Your task to perform on an android device: What's on my calendar today? Image 0: 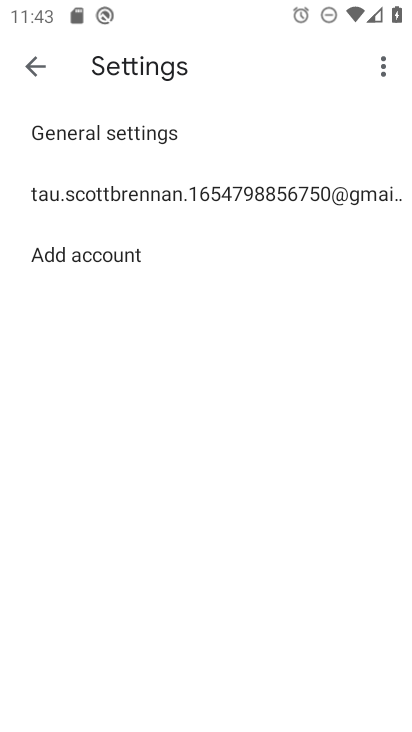
Step 0: press home button
Your task to perform on an android device: What's on my calendar today? Image 1: 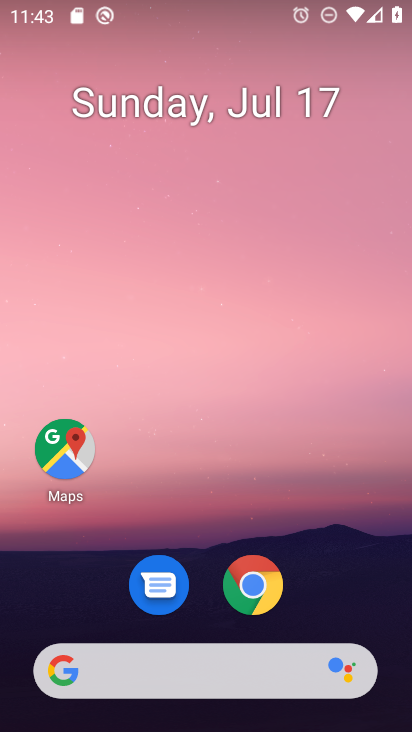
Step 1: drag from (339, 598) to (307, 9)
Your task to perform on an android device: What's on my calendar today? Image 2: 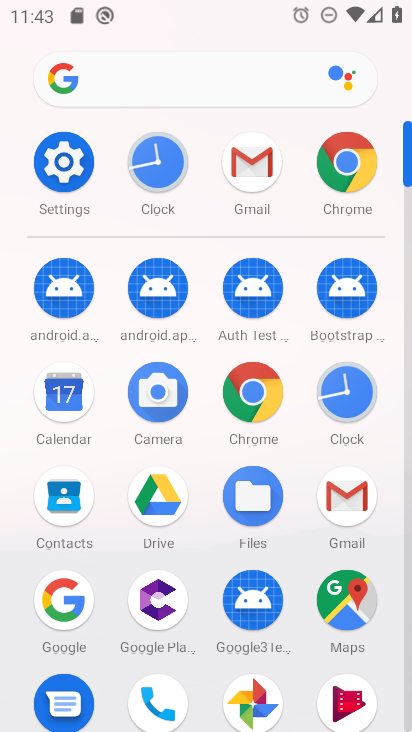
Step 2: click (349, 381)
Your task to perform on an android device: What's on my calendar today? Image 3: 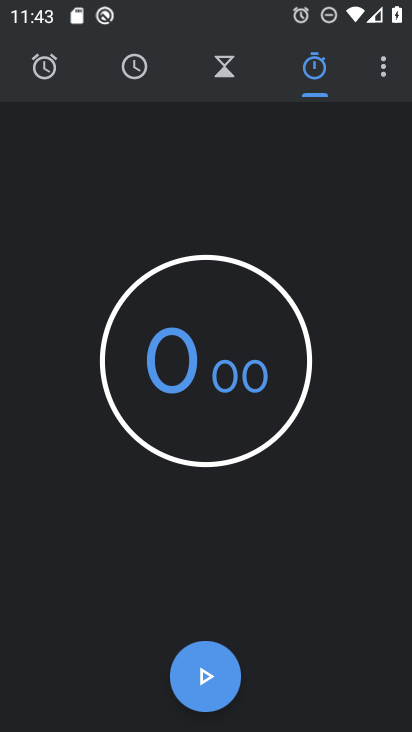
Step 3: press home button
Your task to perform on an android device: What's on my calendar today? Image 4: 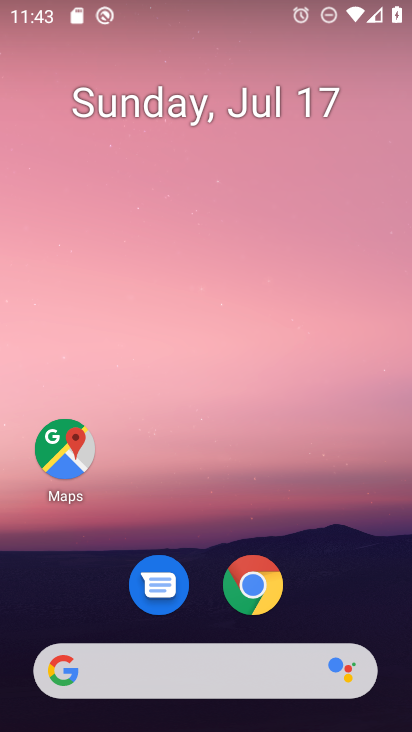
Step 4: drag from (359, 603) to (272, 38)
Your task to perform on an android device: What's on my calendar today? Image 5: 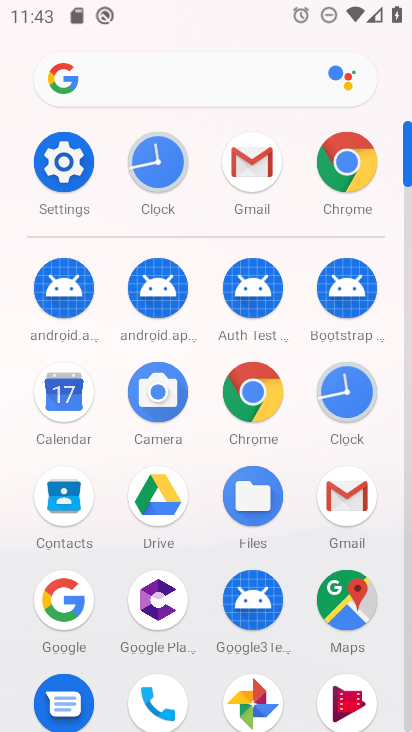
Step 5: click (65, 387)
Your task to perform on an android device: What's on my calendar today? Image 6: 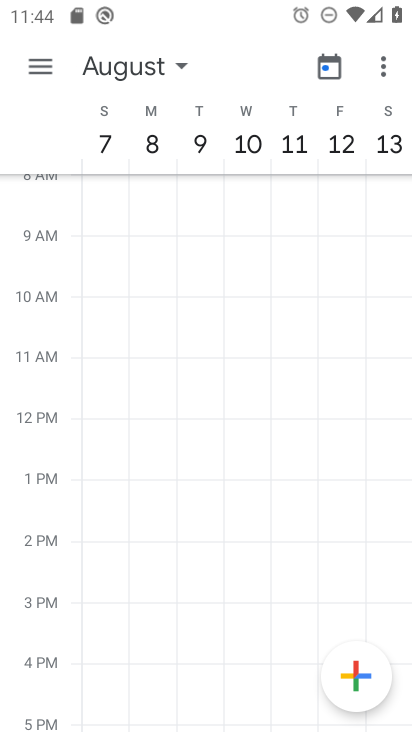
Step 6: drag from (229, 292) to (379, 303)
Your task to perform on an android device: What's on my calendar today? Image 7: 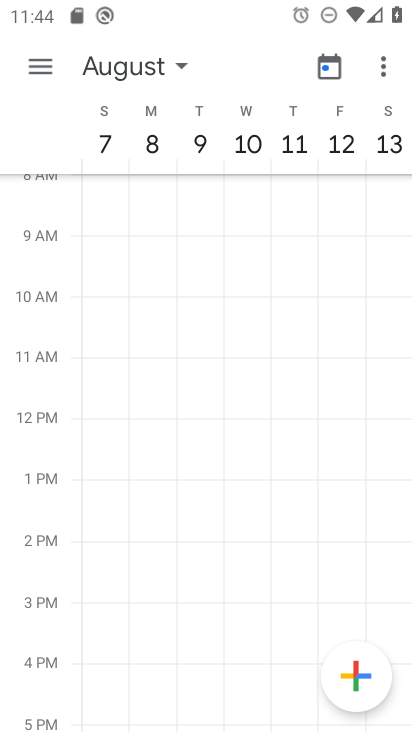
Step 7: drag from (98, 372) to (409, 440)
Your task to perform on an android device: What's on my calendar today? Image 8: 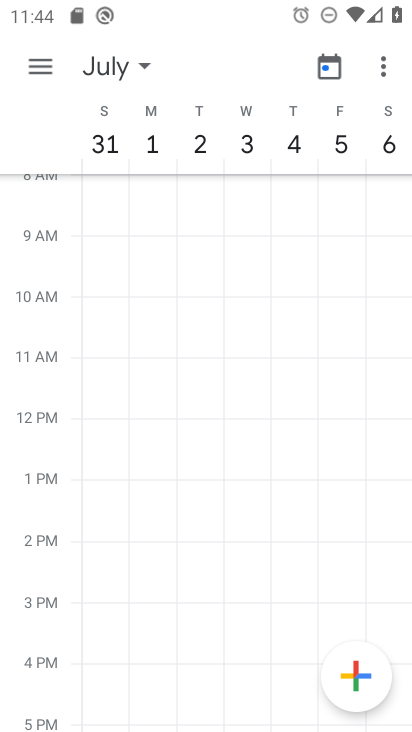
Step 8: drag from (92, 321) to (409, 460)
Your task to perform on an android device: What's on my calendar today? Image 9: 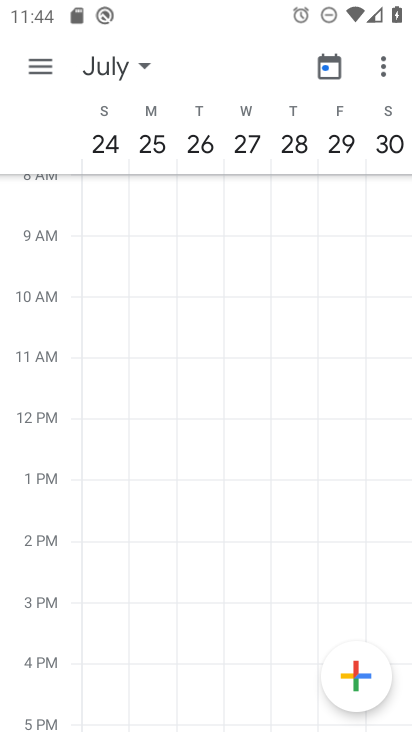
Step 9: drag from (91, 318) to (408, 394)
Your task to perform on an android device: What's on my calendar today? Image 10: 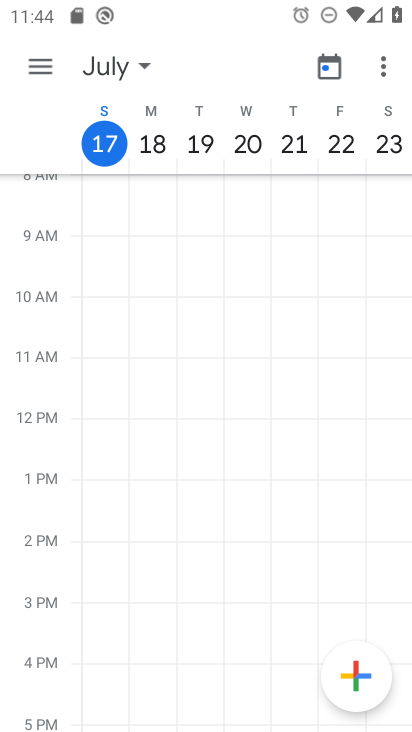
Step 10: click (108, 137)
Your task to perform on an android device: What's on my calendar today? Image 11: 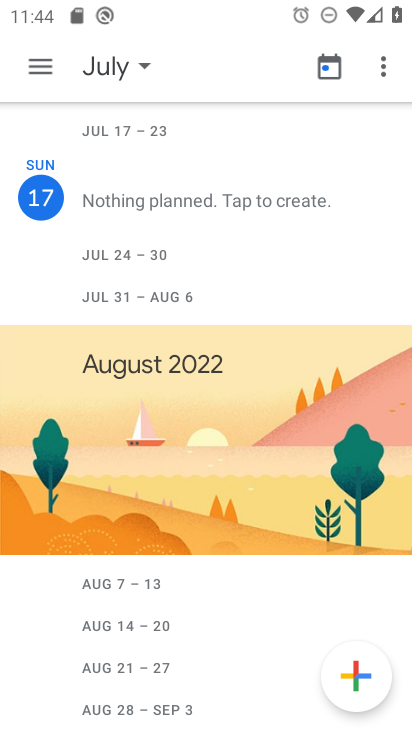
Step 11: task complete